Your task to perform on an android device: check storage Image 0: 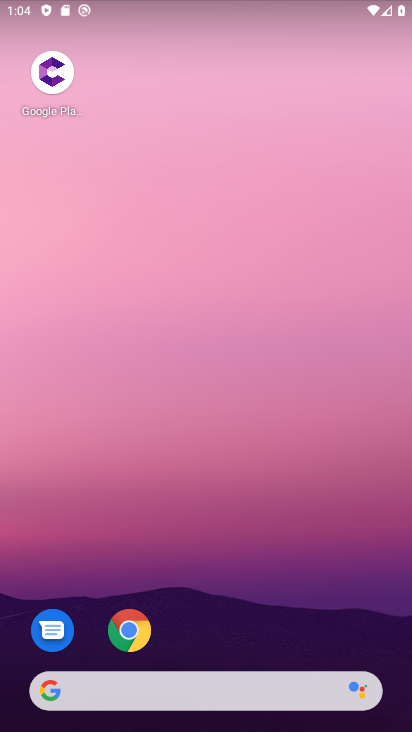
Step 0: drag from (259, 624) to (263, 193)
Your task to perform on an android device: check storage Image 1: 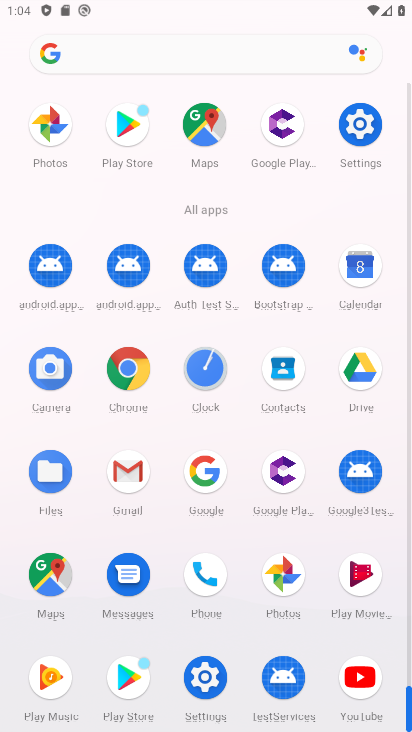
Step 1: click (354, 135)
Your task to perform on an android device: check storage Image 2: 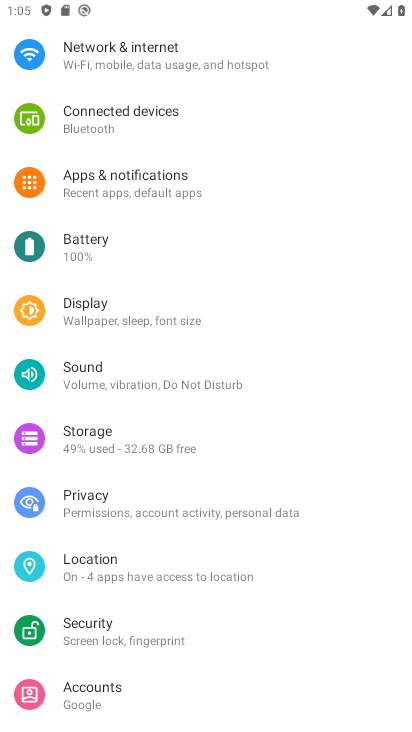
Step 2: click (153, 436)
Your task to perform on an android device: check storage Image 3: 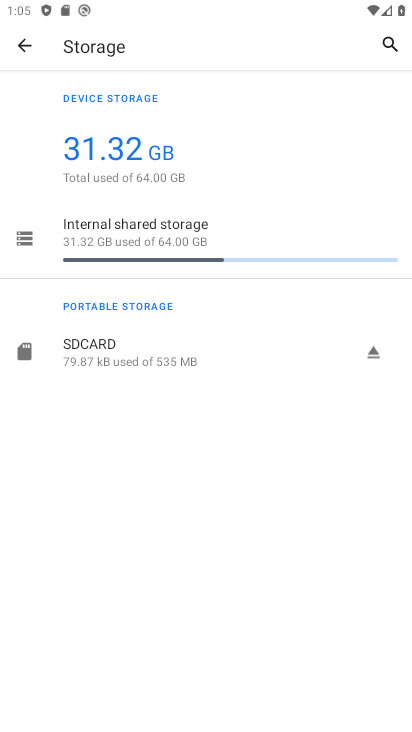
Step 3: task complete